Your task to perform on an android device: toggle translation in the chrome app Image 0: 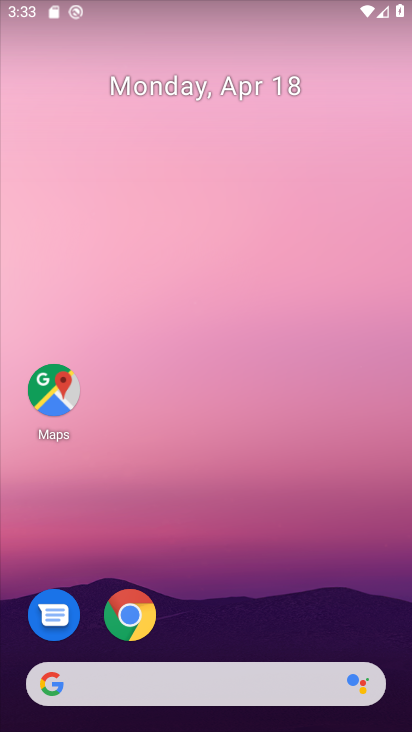
Step 0: click (124, 624)
Your task to perform on an android device: toggle translation in the chrome app Image 1: 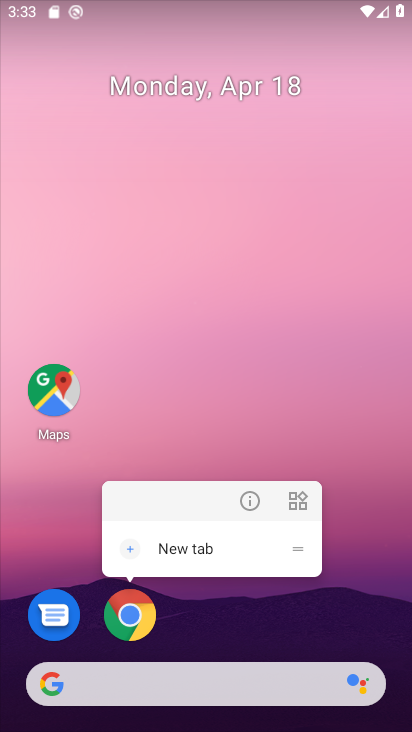
Step 1: click (108, 620)
Your task to perform on an android device: toggle translation in the chrome app Image 2: 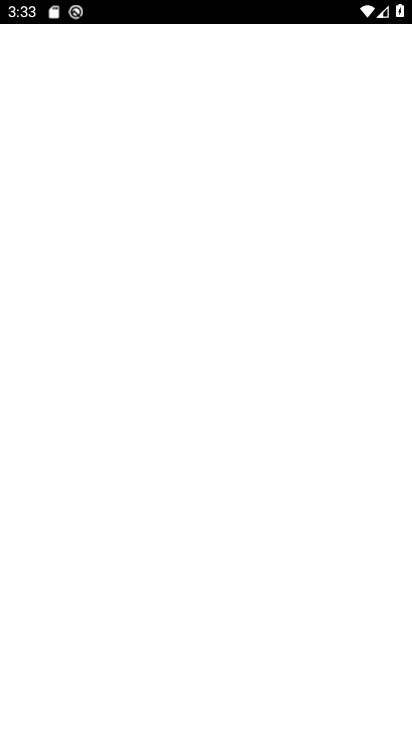
Step 2: click (131, 634)
Your task to perform on an android device: toggle translation in the chrome app Image 3: 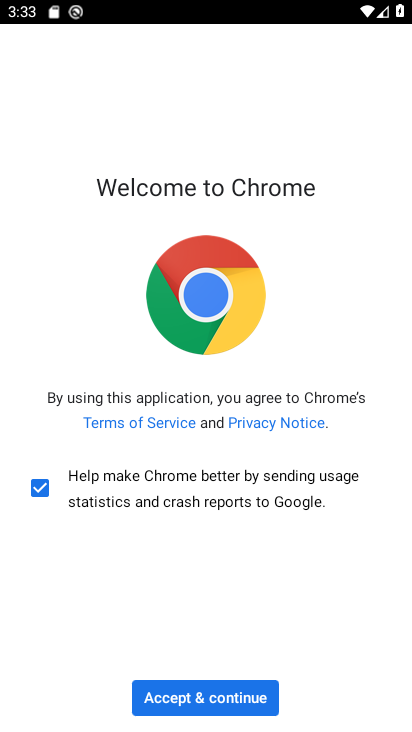
Step 3: click (241, 692)
Your task to perform on an android device: toggle translation in the chrome app Image 4: 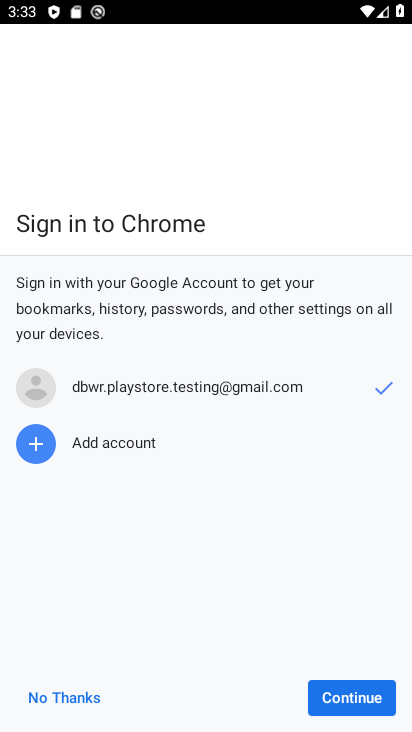
Step 4: click (351, 699)
Your task to perform on an android device: toggle translation in the chrome app Image 5: 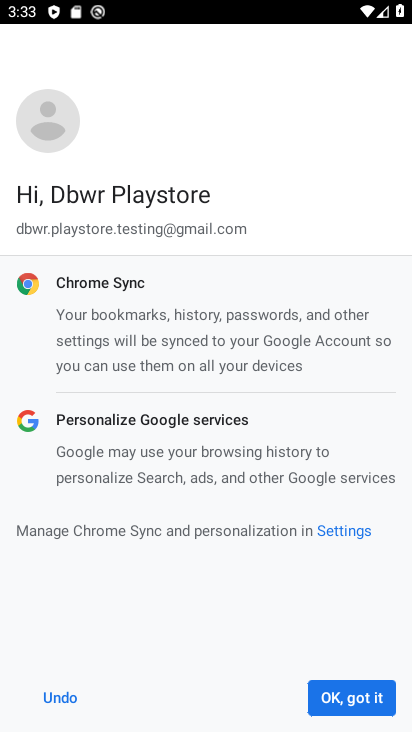
Step 5: click (345, 699)
Your task to perform on an android device: toggle translation in the chrome app Image 6: 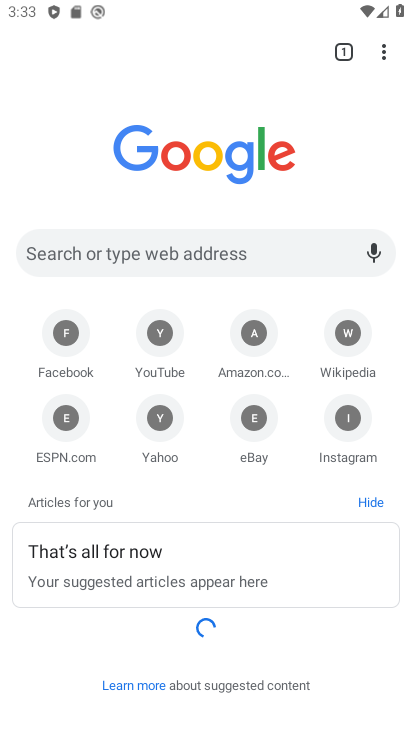
Step 6: click (388, 54)
Your task to perform on an android device: toggle translation in the chrome app Image 7: 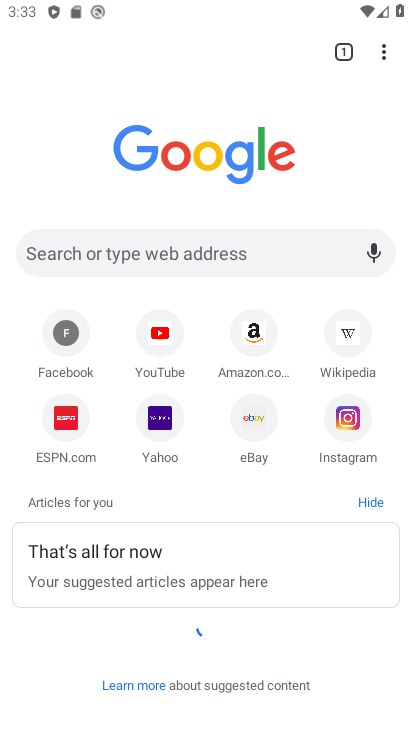
Step 7: click (388, 54)
Your task to perform on an android device: toggle translation in the chrome app Image 8: 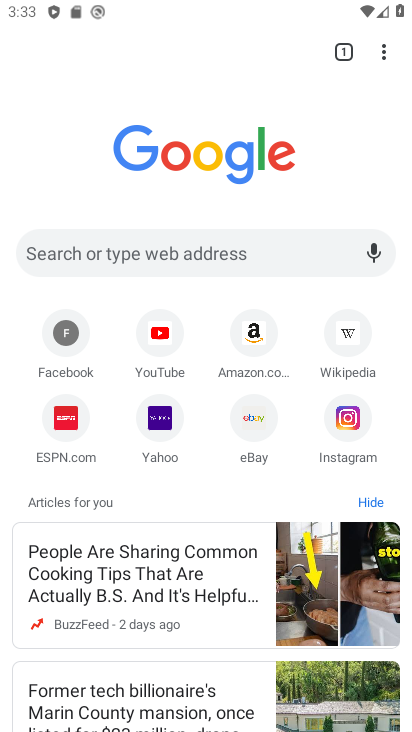
Step 8: drag from (383, 51) to (294, 436)
Your task to perform on an android device: toggle translation in the chrome app Image 9: 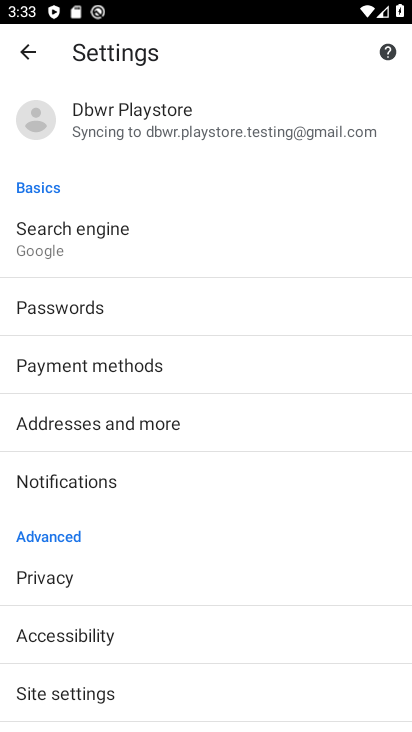
Step 9: drag from (160, 668) to (257, 364)
Your task to perform on an android device: toggle translation in the chrome app Image 10: 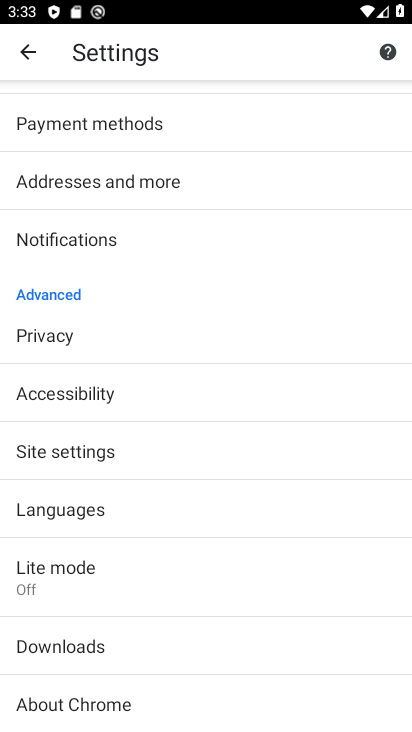
Step 10: click (142, 517)
Your task to perform on an android device: toggle translation in the chrome app Image 11: 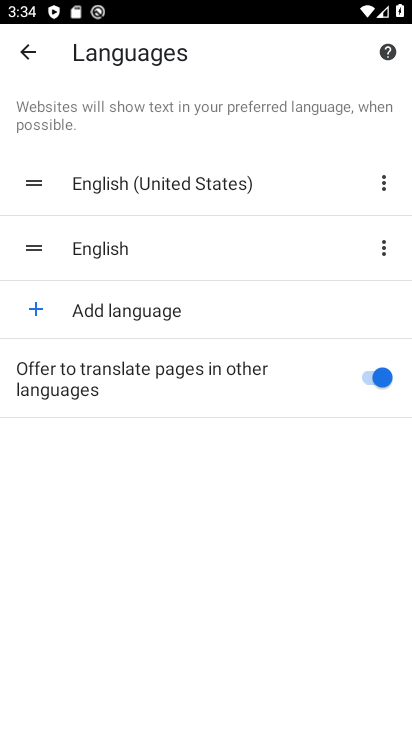
Step 11: click (374, 374)
Your task to perform on an android device: toggle translation in the chrome app Image 12: 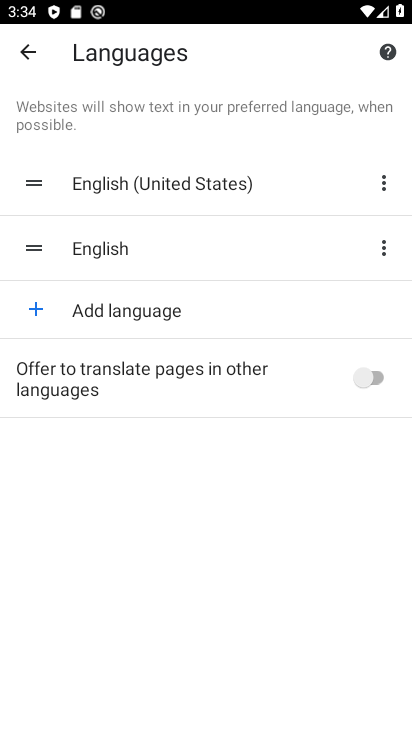
Step 12: task complete